Your task to perform on an android device: Go to internet settings Image 0: 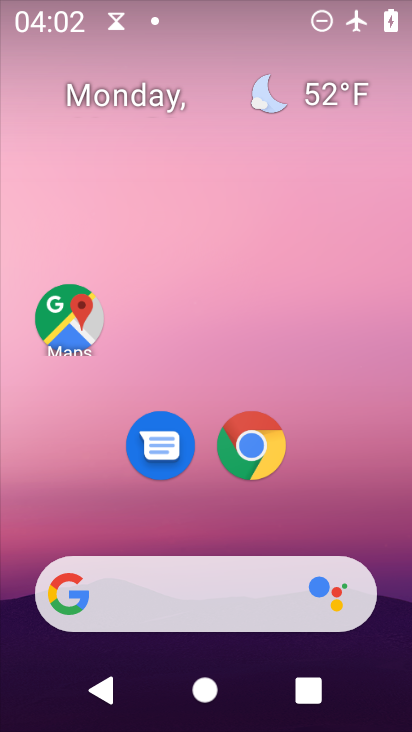
Step 0: drag from (195, 531) to (270, 11)
Your task to perform on an android device: Go to internet settings Image 1: 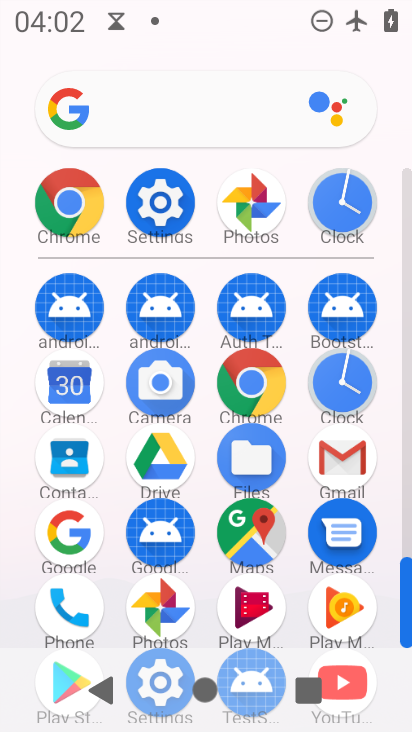
Step 1: drag from (166, 592) to (179, 276)
Your task to perform on an android device: Go to internet settings Image 2: 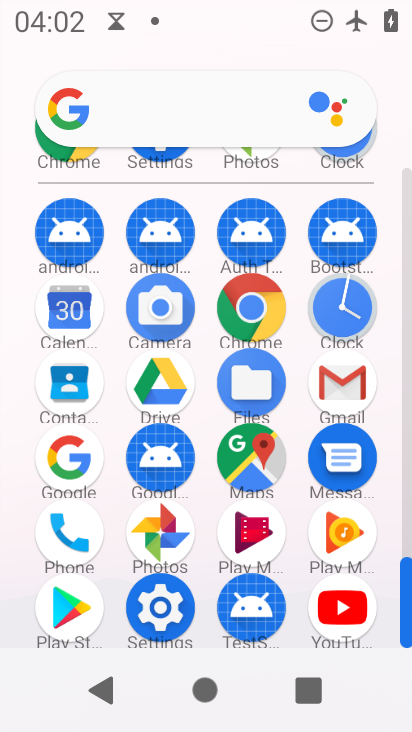
Step 2: click (168, 606)
Your task to perform on an android device: Go to internet settings Image 3: 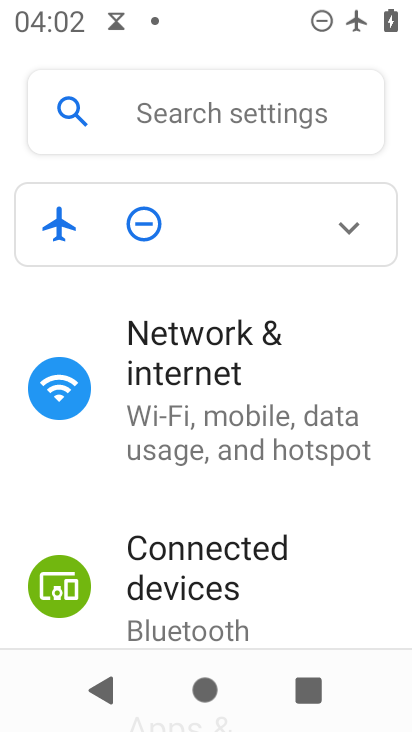
Step 3: click (251, 457)
Your task to perform on an android device: Go to internet settings Image 4: 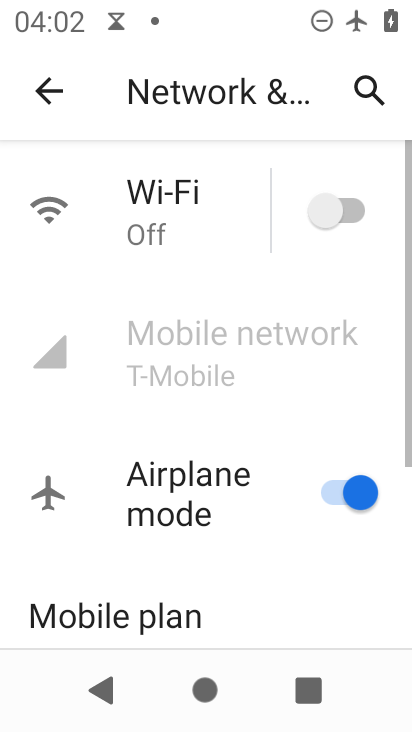
Step 4: task complete